Your task to perform on an android device: Go to network settings Image 0: 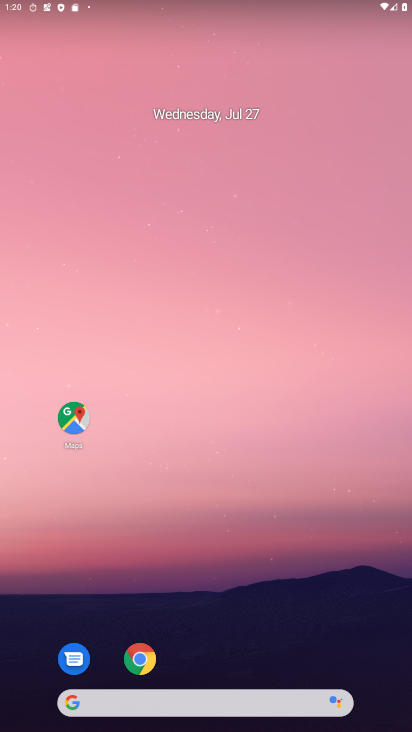
Step 0: press home button
Your task to perform on an android device: Go to network settings Image 1: 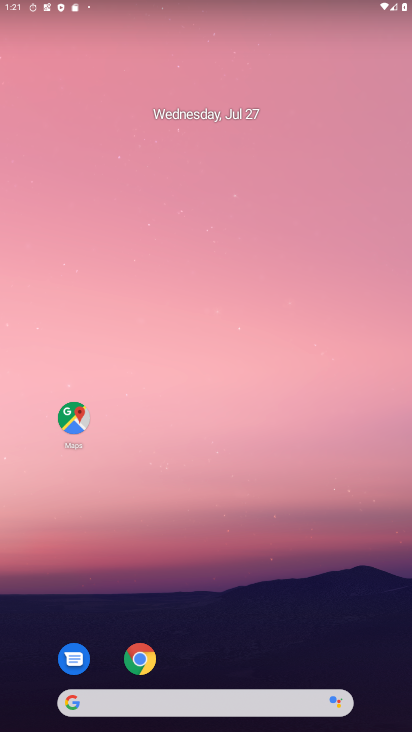
Step 1: drag from (221, 668) to (223, 42)
Your task to perform on an android device: Go to network settings Image 2: 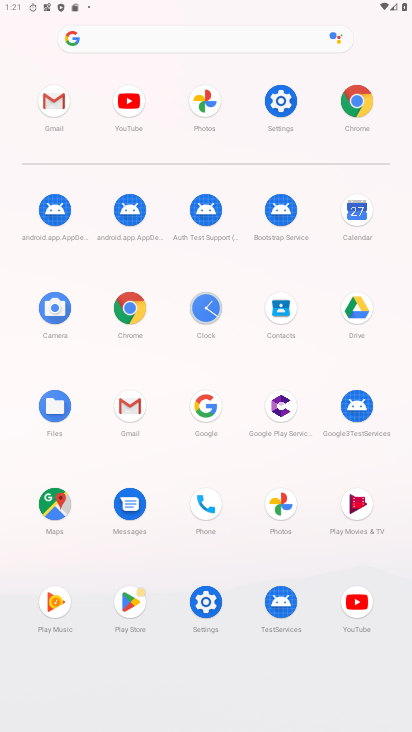
Step 2: click (279, 92)
Your task to perform on an android device: Go to network settings Image 3: 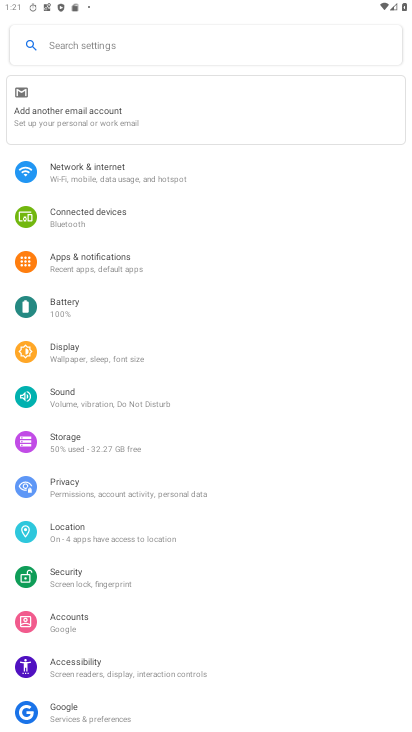
Step 3: click (139, 170)
Your task to perform on an android device: Go to network settings Image 4: 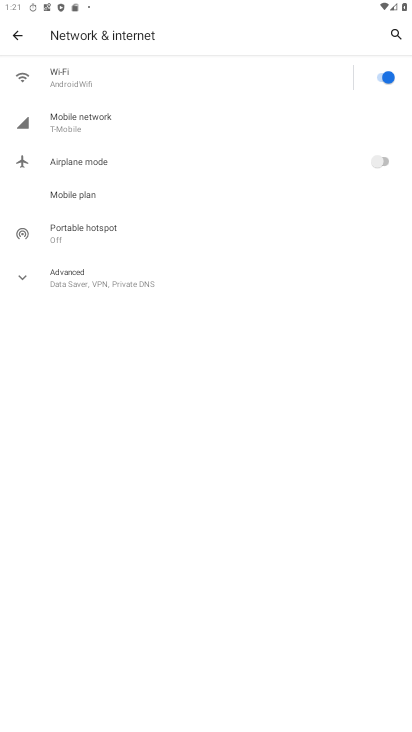
Step 4: click (24, 274)
Your task to perform on an android device: Go to network settings Image 5: 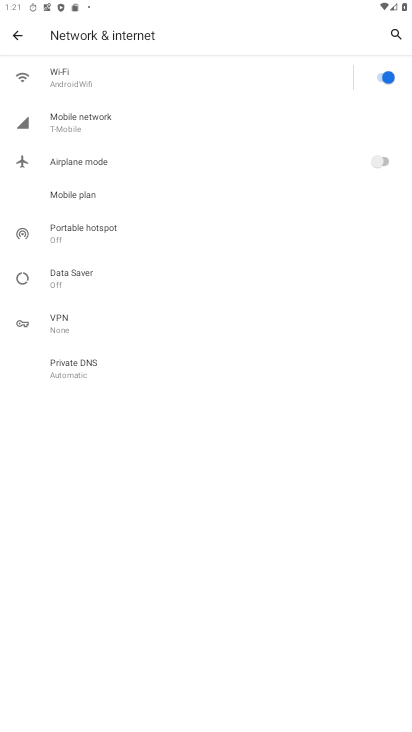
Step 5: task complete